Your task to perform on an android device: change alarm snooze length Image 0: 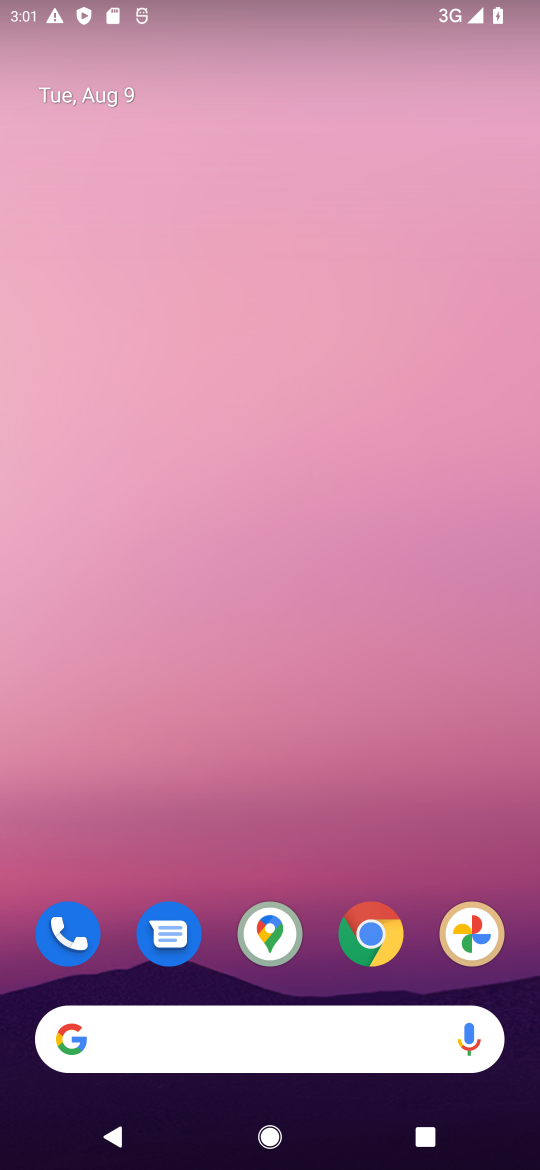
Step 0: drag from (343, 978) to (360, 219)
Your task to perform on an android device: change alarm snooze length Image 1: 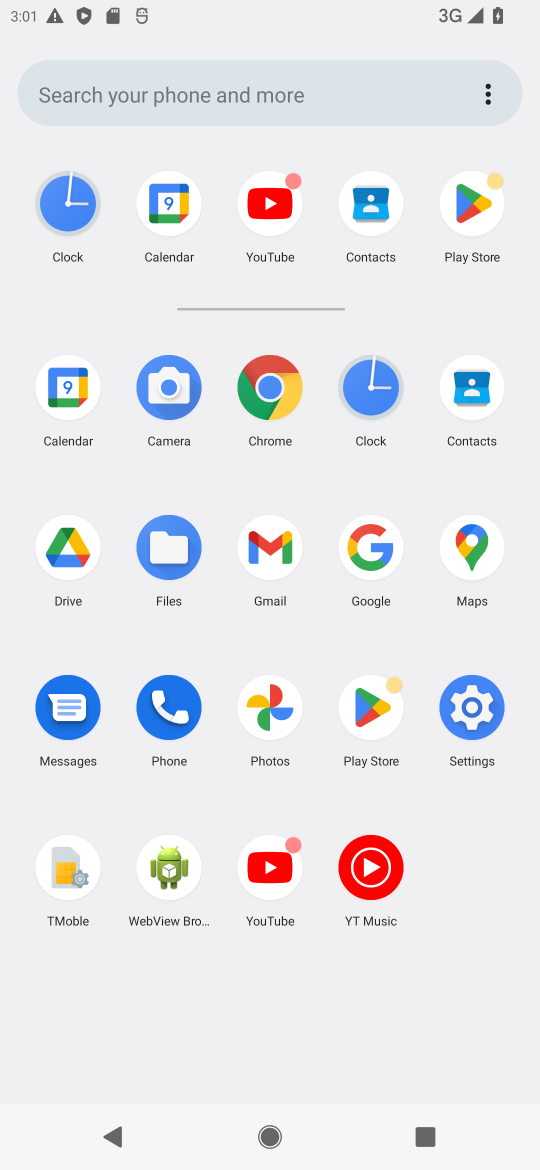
Step 1: click (343, 408)
Your task to perform on an android device: change alarm snooze length Image 2: 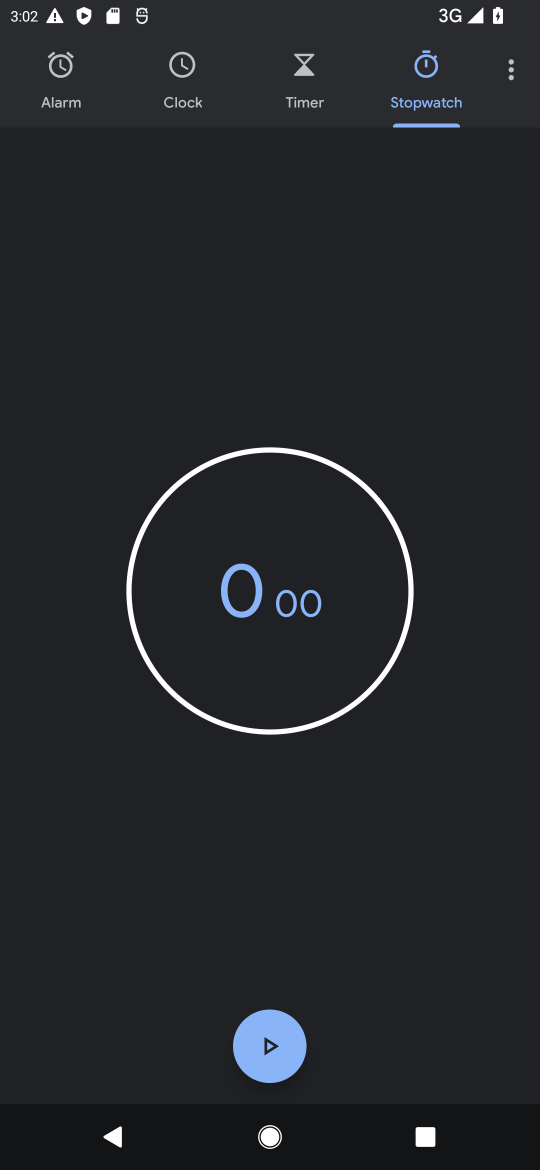
Step 2: click (518, 78)
Your task to perform on an android device: change alarm snooze length Image 3: 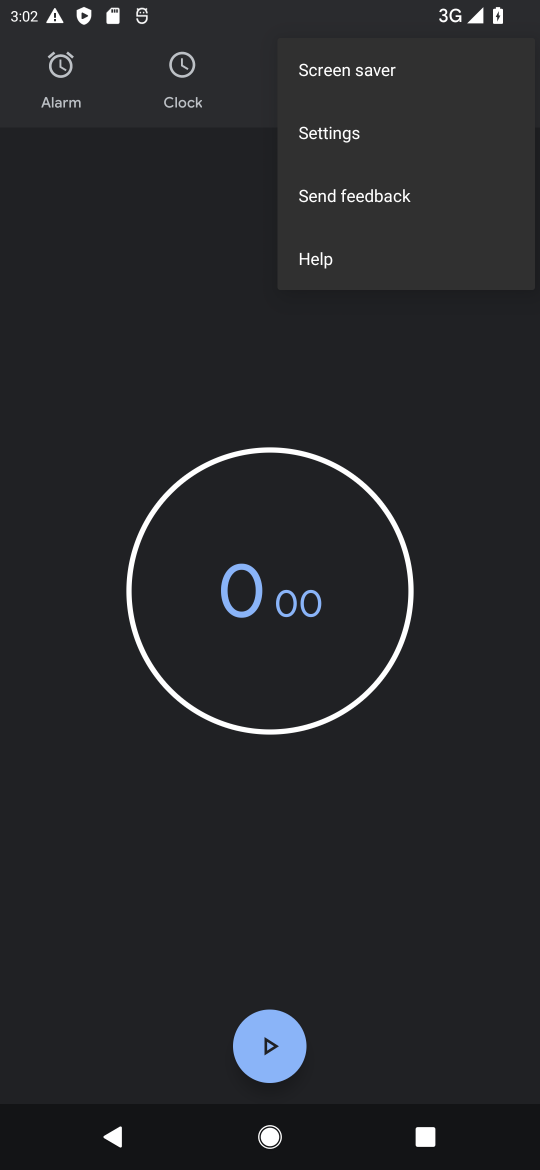
Step 3: click (385, 129)
Your task to perform on an android device: change alarm snooze length Image 4: 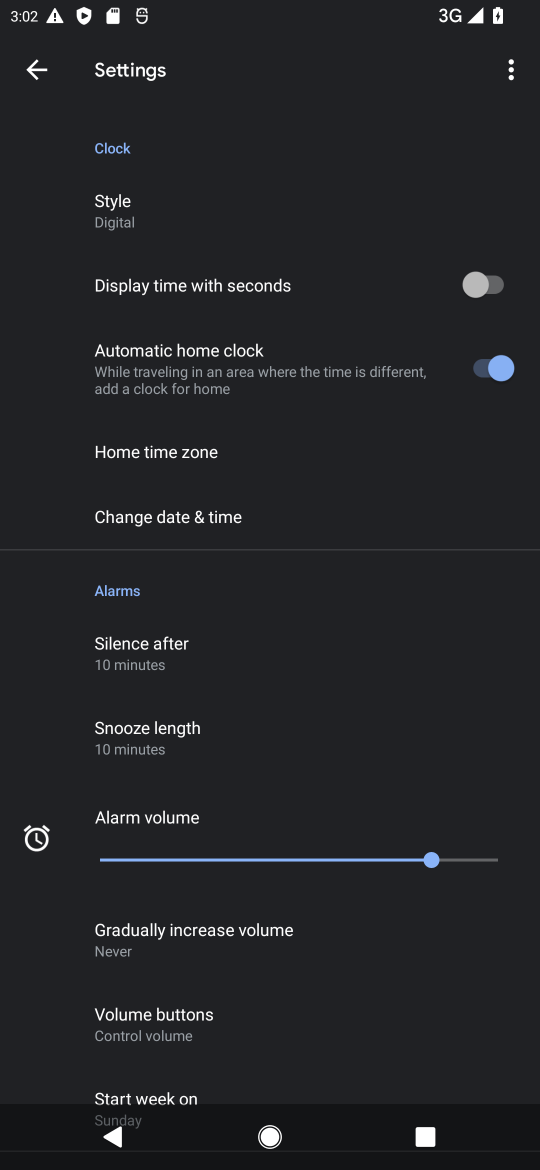
Step 4: task complete